Your task to perform on an android device: change timer sound Image 0: 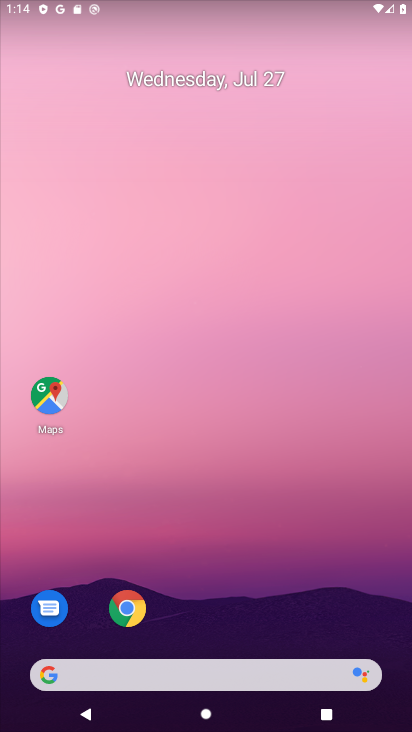
Step 0: drag from (179, 582) to (174, 62)
Your task to perform on an android device: change timer sound Image 1: 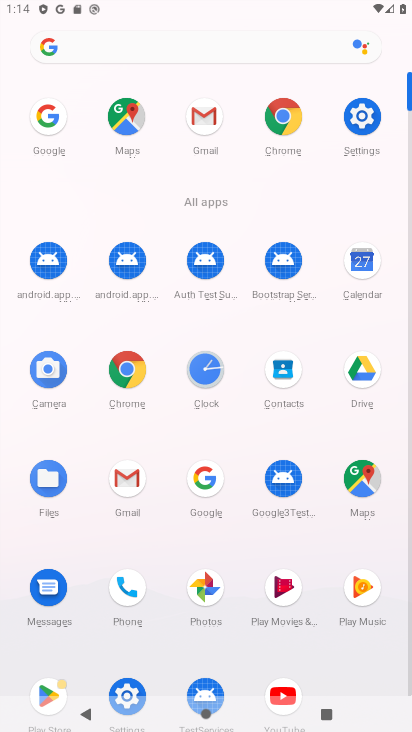
Step 1: click (198, 388)
Your task to perform on an android device: change timer sound Image 2: 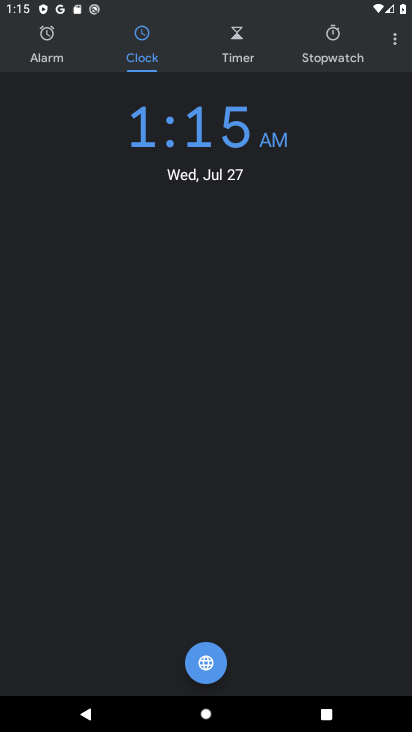
Step 2: click (397, 41)
Your task to perform on an android device: change timer sound Image 3: 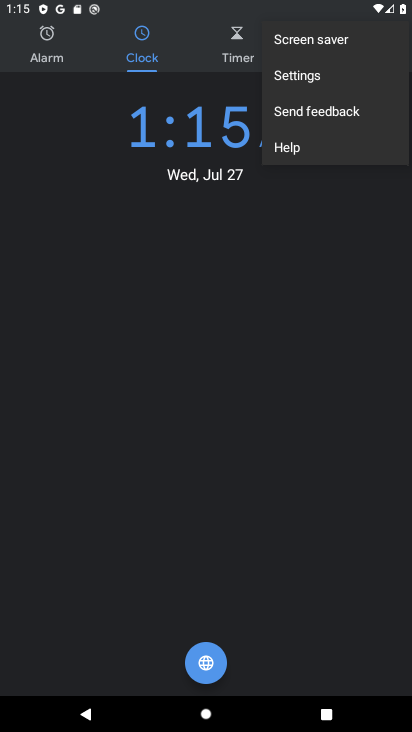
Step 3: click (327, 73)
Your task to perform on an android device: change timer sound Image 4: 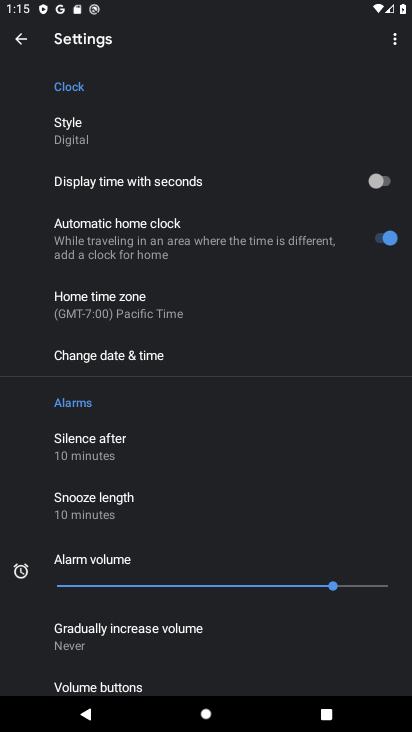
Step 4: drag from (129, 496) to (133, 219)
Your task to perform on an android device: change timer sound Image 5: 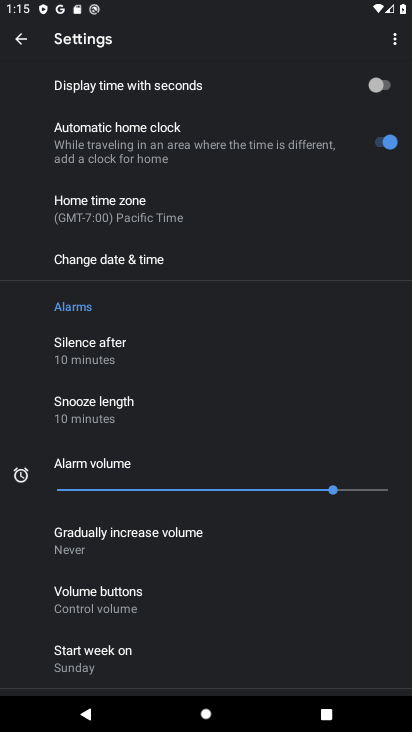
Step 5: drag from (164, 621) to (164, 227)
Your task to perform on an android device: change timer sound Image 6: 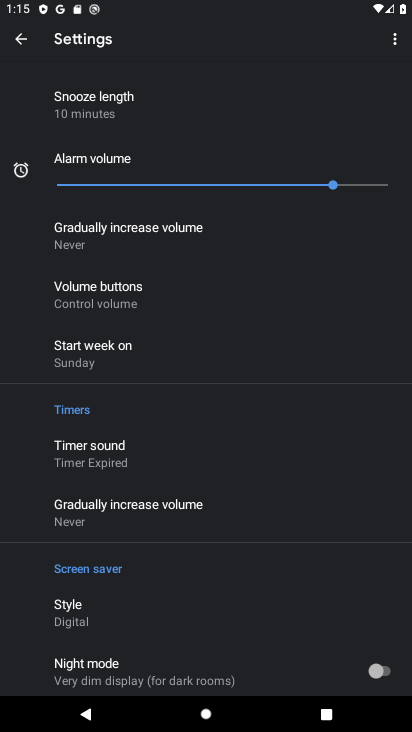
Step 6: drag from (134, 473) to (151, 157)
Your task to perform on an android device: change timer sound Image 7: 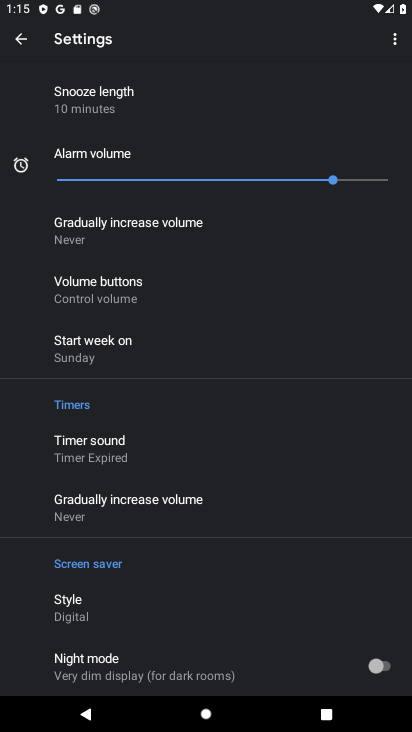
Step 7: drag from (157, 324) to (157, 536)
Your task to perform on an android device: change timer sound Image 8: 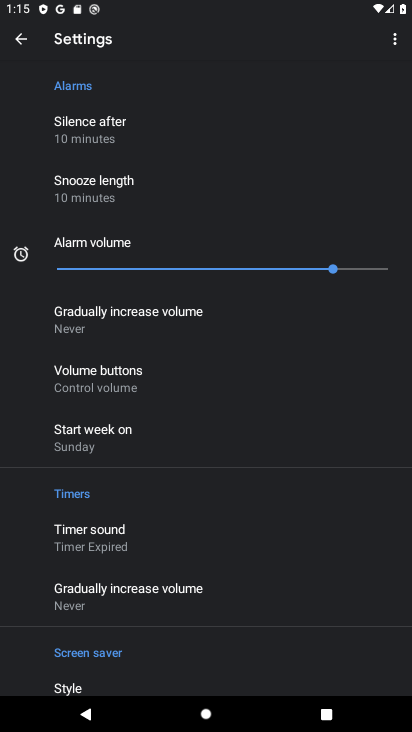
Step 8: click (112, 536)
Your task to perform on an android device: change timer sound Image 9: 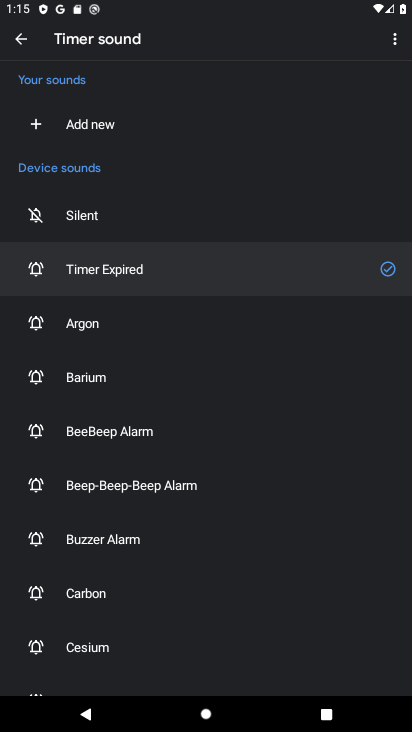
Step 9: click (84, 389)
Your task to perform on an android device: change timer sound Image 10: 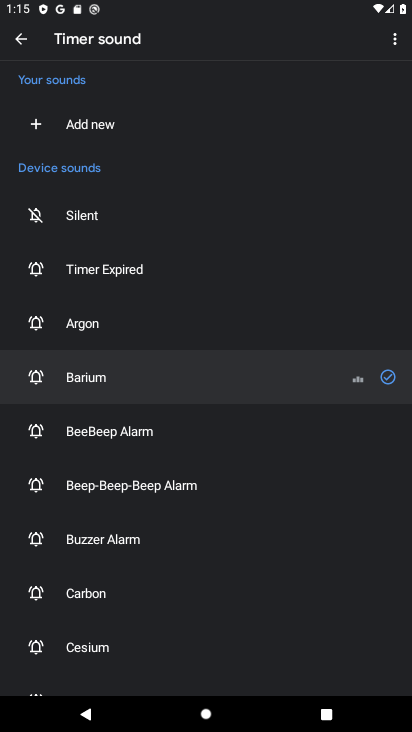
Step 10: task complete